Your task to perform on an android device: turn off picture-in-picture Image 0: 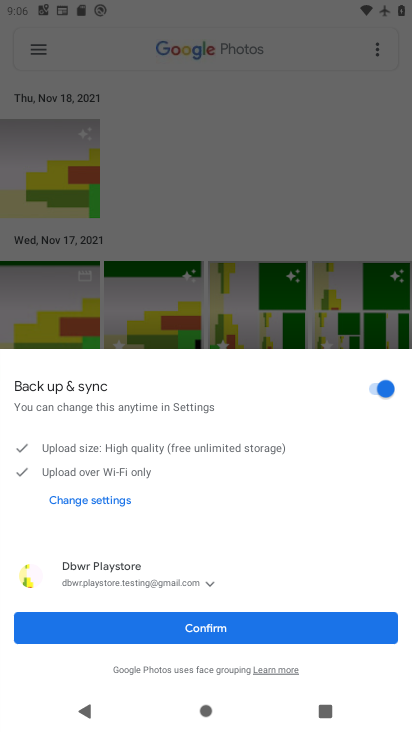
Step 0: press home button
Your task to perform on an android device: turn off picture-in-picture Image 1: 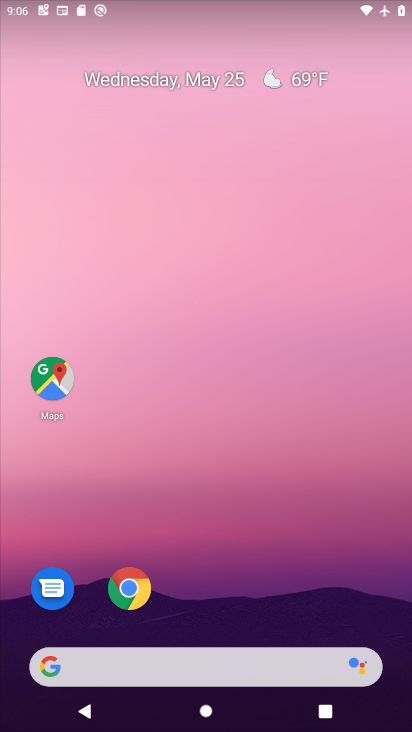
Step 1: drag from (364, 601) to (371, 142)
Your task to perform on an android device: turn off picture-in-picture Image 2: 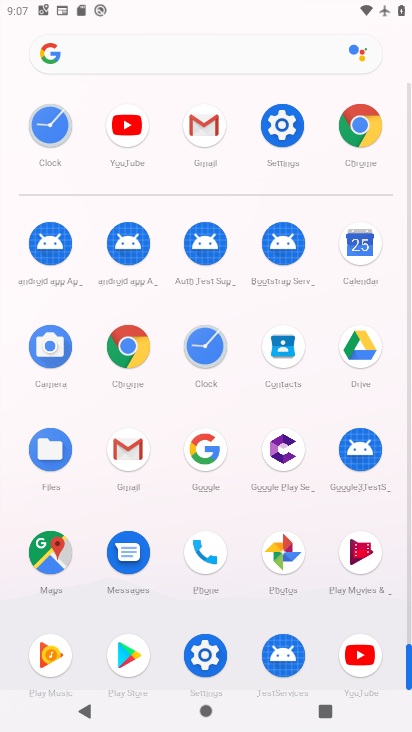
Step 2: click (288, 133)
Your task to perform on an android device: turn off picture-in-picture Image 3: 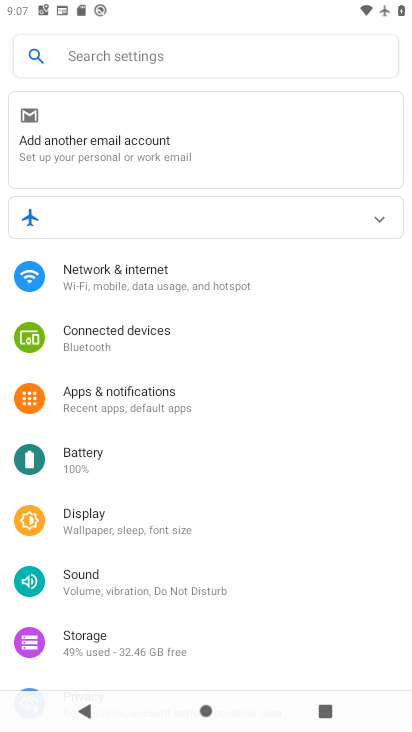
Step 3: drag from (324, 513) to (356, 398)
Your task to perform on an android device: turn off picture-in-picture Image 4: 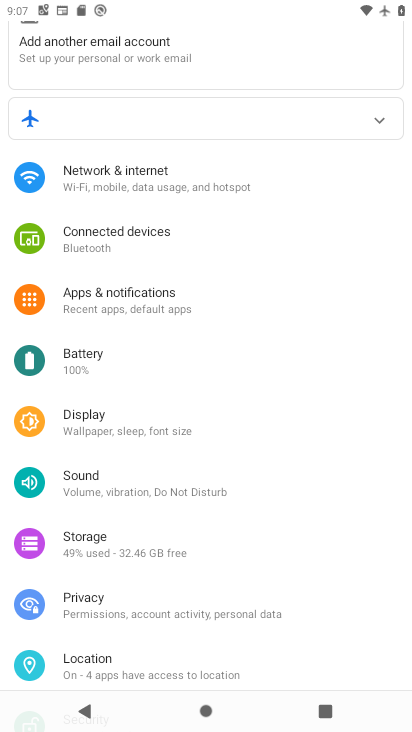
Step 4: drag from (356, 558) to (369, 454)
Your task to perform on an android device: turn off picture-in-picture Image 5: 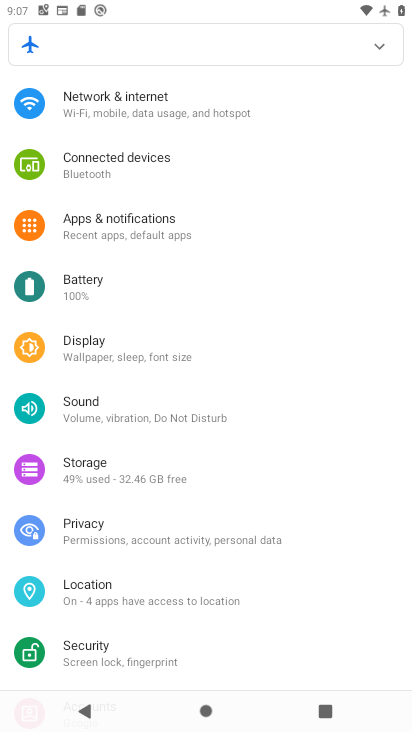
Step 5: drag from (342, 579) to (343, 436)
Your task to perform on an android device: turn off picture-in-picture Image 6: 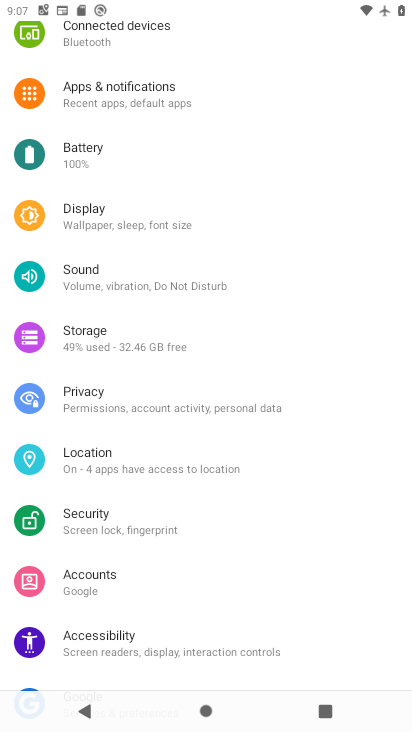
Step 6: drag from (334, 573) to (344, 432)
Your task to perform on an android device: turn off picture-in-picture Image 7: 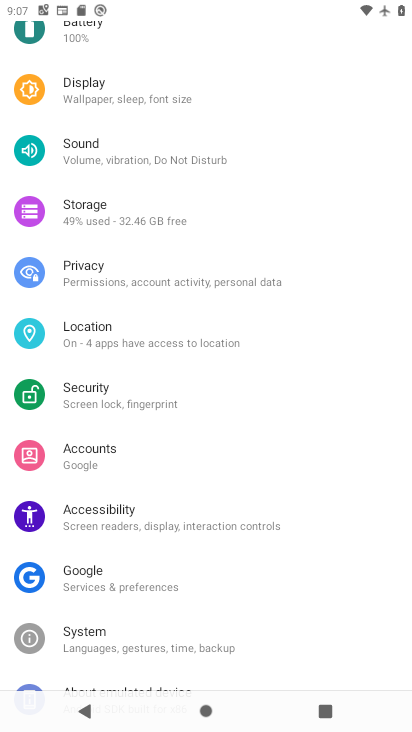
Step 7: drag from (345, 602) to (354, 455)
Your task to perform on an android device: turn off picture-in-picture Image 8: 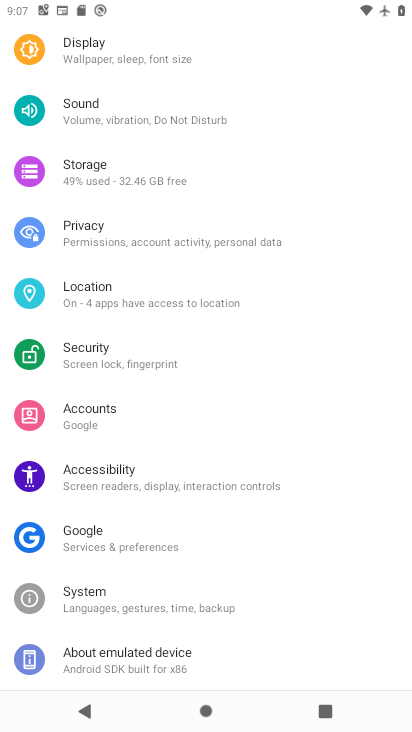
Step 8: drag from (340, 322) to (337, 401)
Your task to perform on an android device: turn off picture-in-picture Image 9: 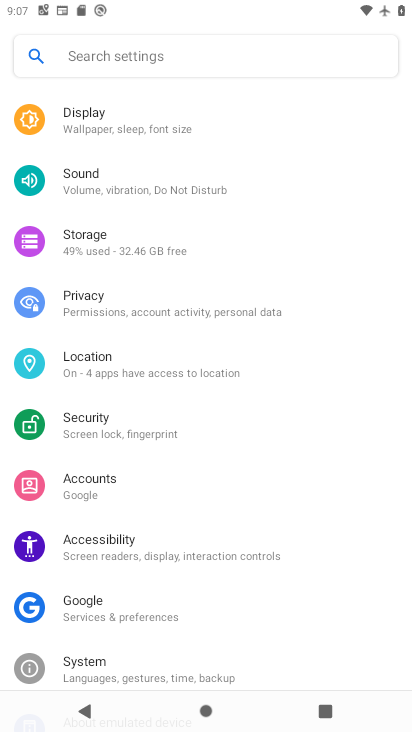
Step 9: drag from (327, 273) to (322, 374)
Your task to perform on an android device: turn off picture-in-picture Image 10: 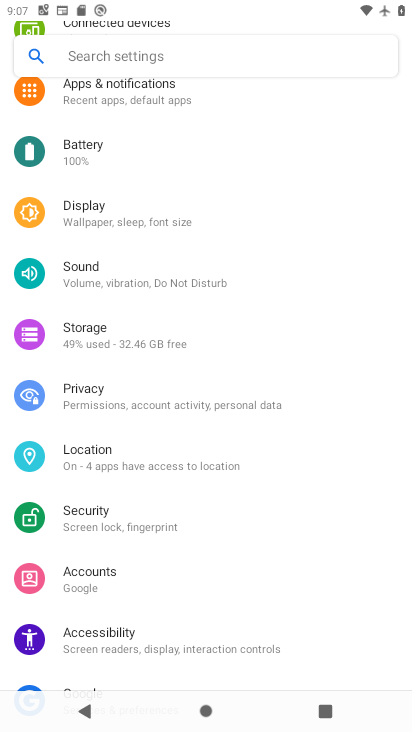
Step 10: drag from (324, 269) to (340, 354)
Your task to perform on an android device: turn off picture-in-picture Image 11: 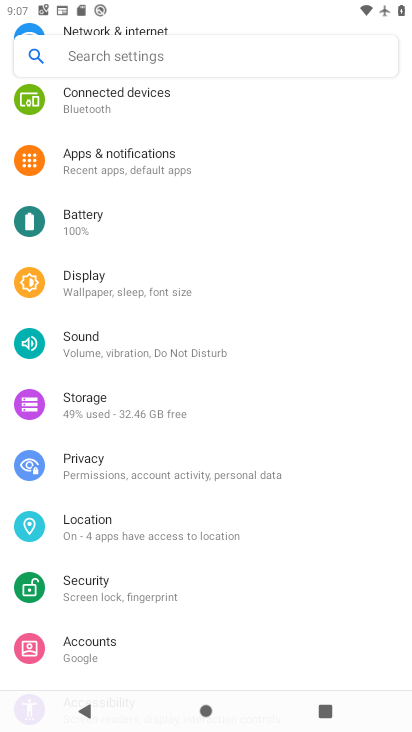
Step 11: drag from (342, 250) to (356, 386)
Your task to perform on an android device: turn off picture-in-picture Image 12: 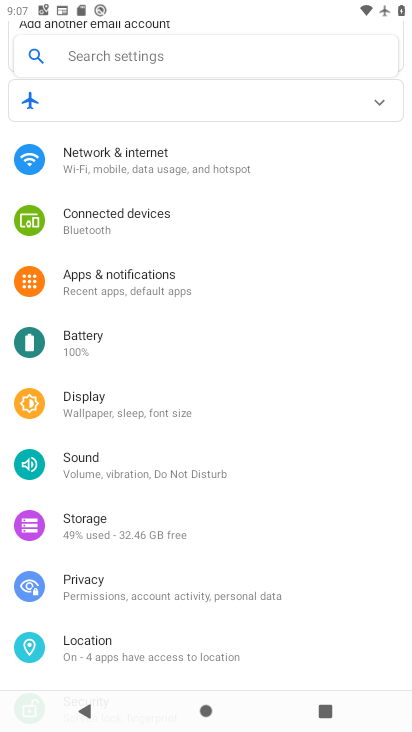
Step 12: drag from (356, 219) to (335, 375)
Your task to perform on an android device: turn off picture-in-picture Image 13: 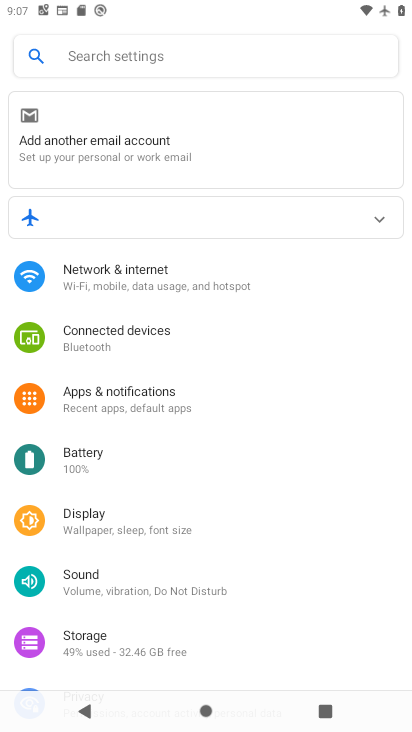
Step 13: drag from (299, 148) to (292, 330)
Your task to perform on an android device: turn off picture-in-picture Image 14: 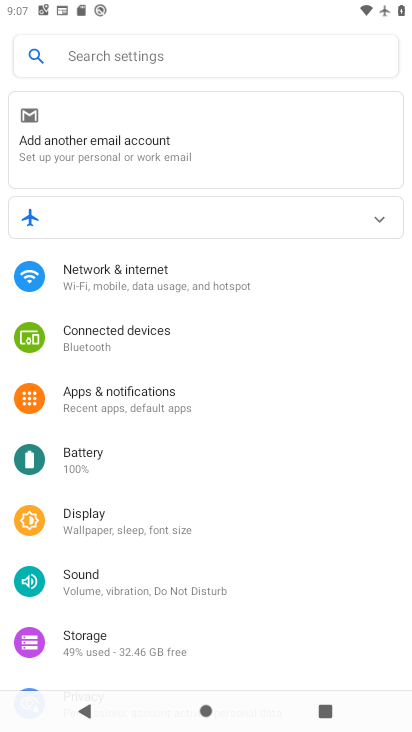
Step 14: click (166, 395)
Your task to perform on an android device: turn off picture-in-picture Image 15: 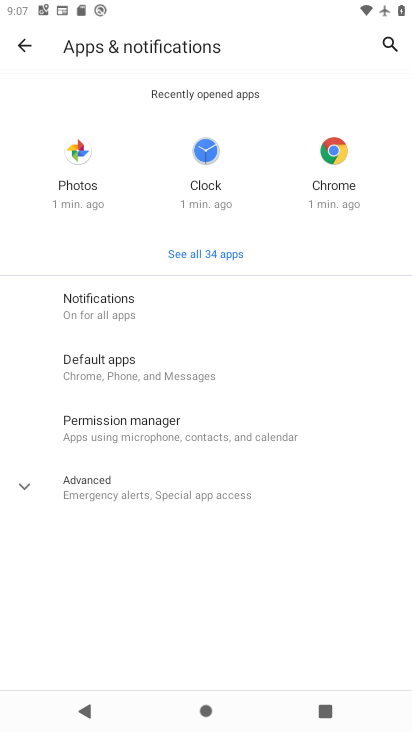
Step 15: click (192, 498)
Your task to perform on an android device: turn off picture-in-picture Image 16: 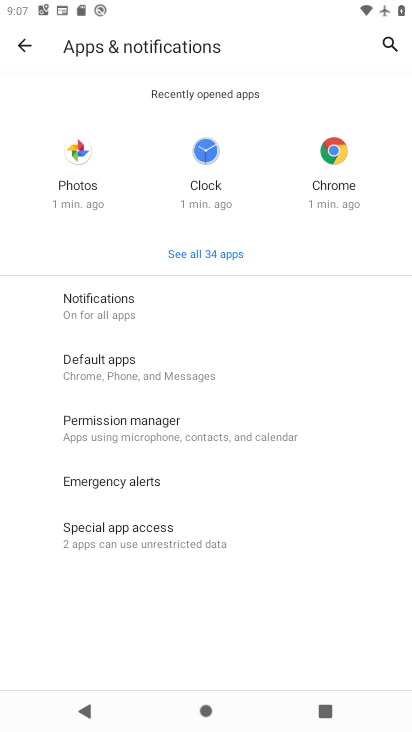
Step 16: click (184, 537)
Your task to perform on an android device: turn off picture-in-picture Image 17: 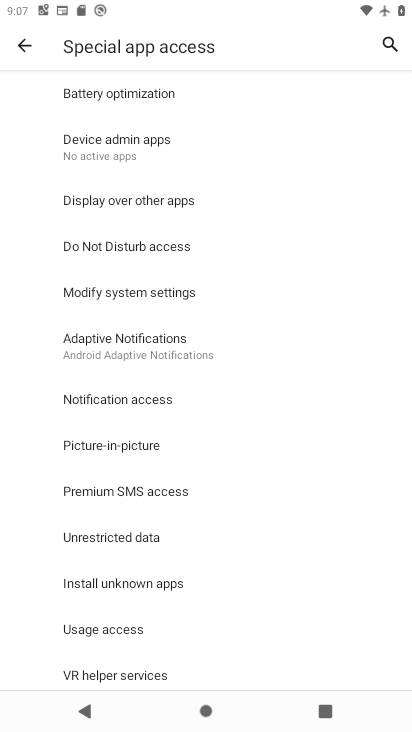
Step 17: click (179, 447)
Your task to perform on an android device: turn off picture-in-picture Image 18: 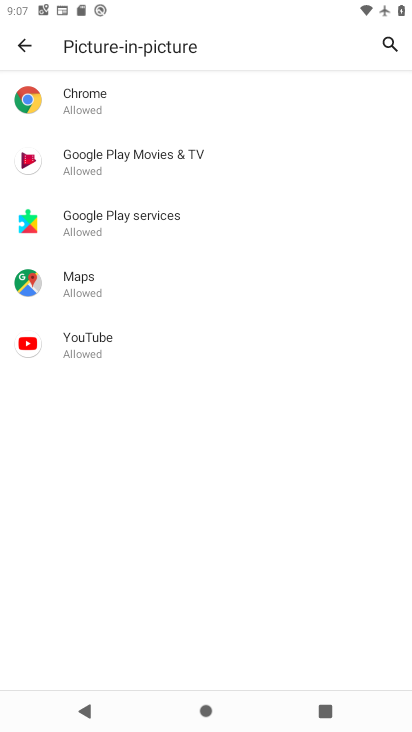
Step 18: click (101, 343)
Your task to perform on an android device: turn off picture-in-picture Image 19: 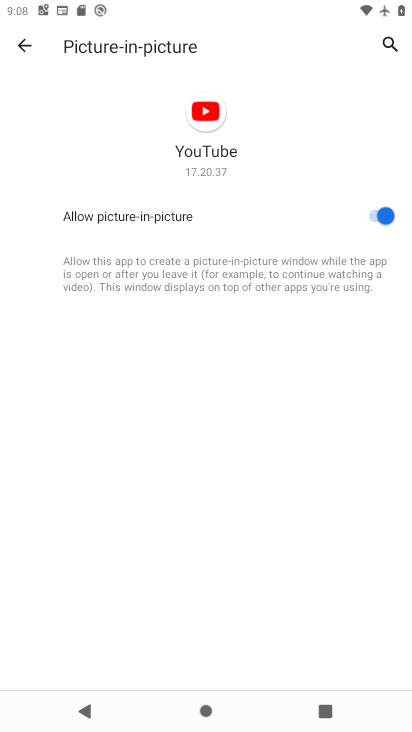
Step 19: click (375, 213)
Your task to perform on an android device: turn off picture-in-picture Image 20: 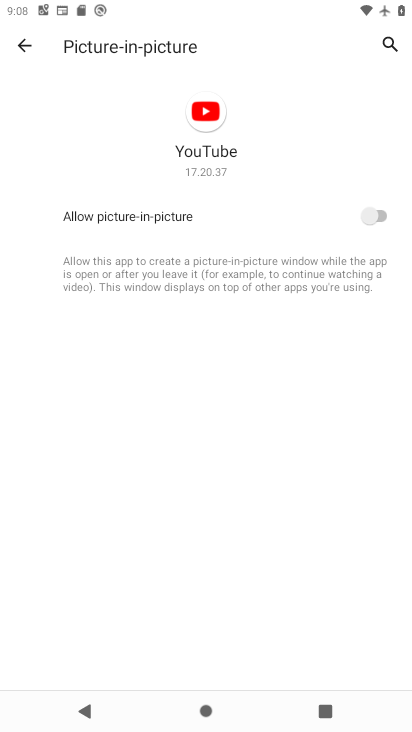
Step 20: task complete